Your task to perform on an android device: Go to Yahoo.com Image 0: 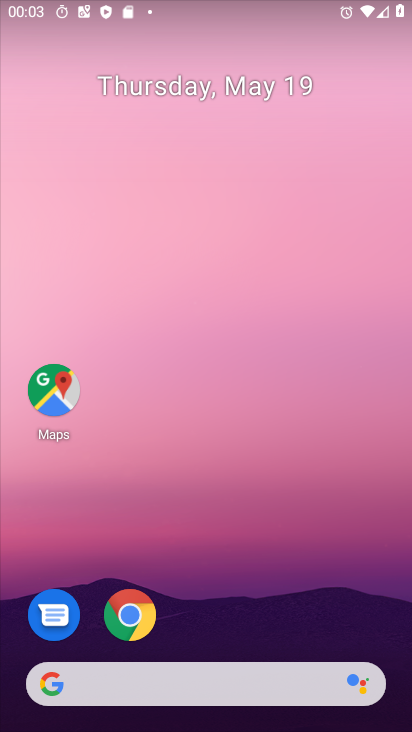
Step 0: click (116, 611)
Your task to perform on an android device: Go to Yahoo.com Image 1: 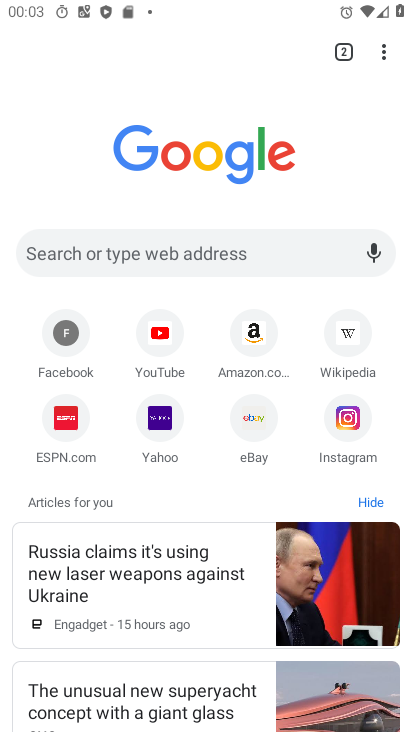
Step 1: click (154, 420)
Your task to perform on an android device: Go to Yahoo.com Image 2: 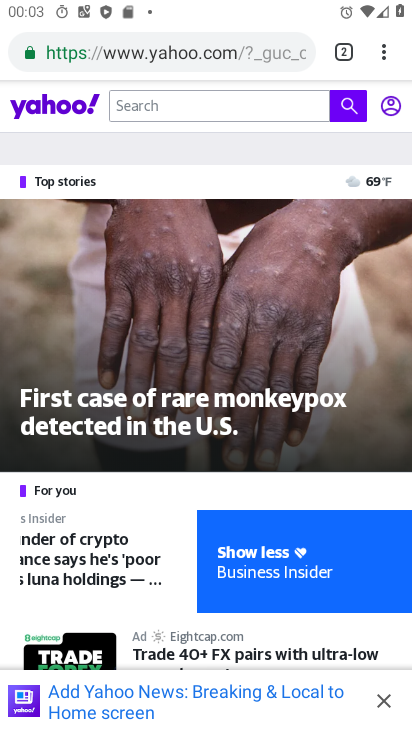
Step 2: task complete